Your task to perform on an android device: Do I have any events this weekend? Image 0: 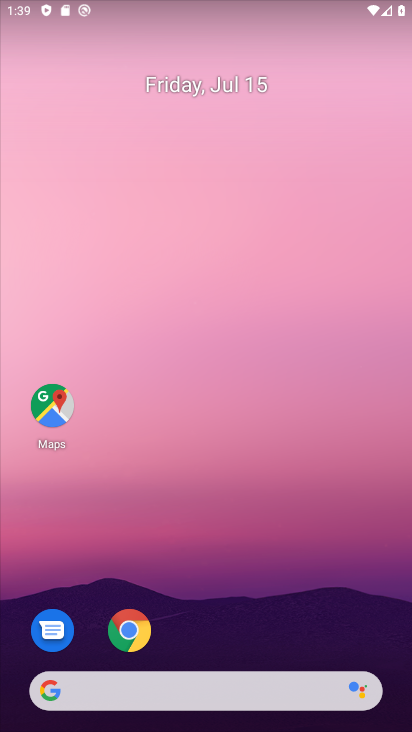
Step 0: drag from (216, 560) to (217, 205)
Your task to perform on an android device: Do I have any events this weekend? Image 1: 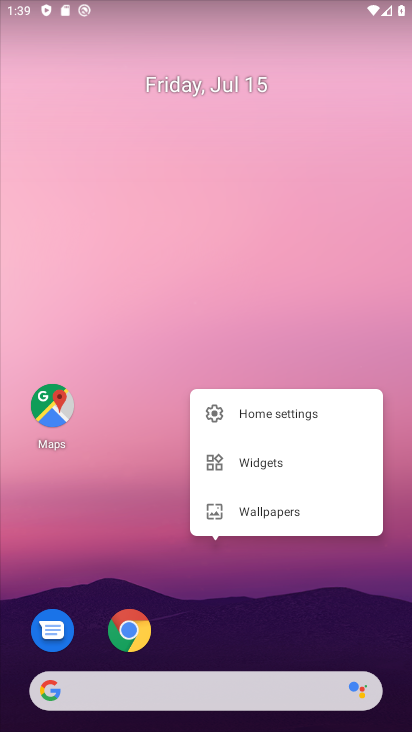
Step 1: click (207, 297)
Your task to perform on an android device: Do I have any events this weekend? Image 2: 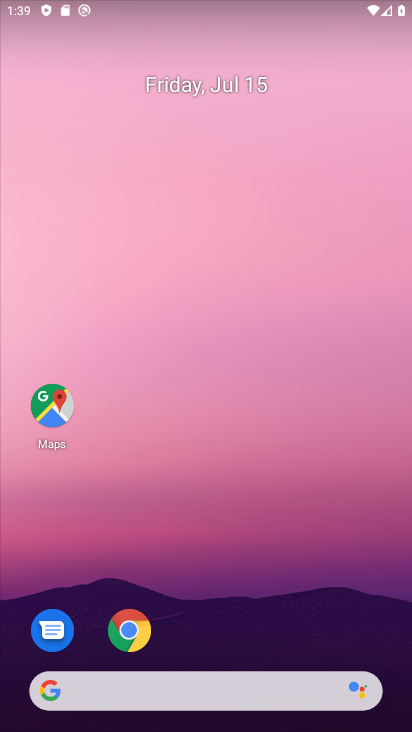
Step 2: drag from (233, 533) to (233, 127)
Your task to perform on an android device: Do I have any events this weekend? Image 3: 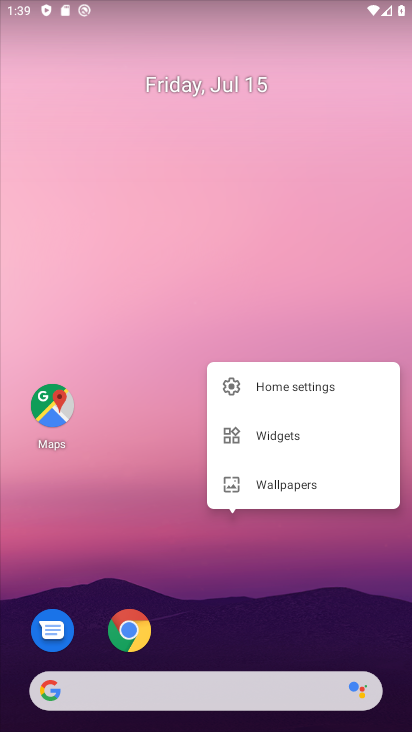
Step 3: click (137, 252)
Your task to perform on an android device: Do I have any events this weekend? Image 4: 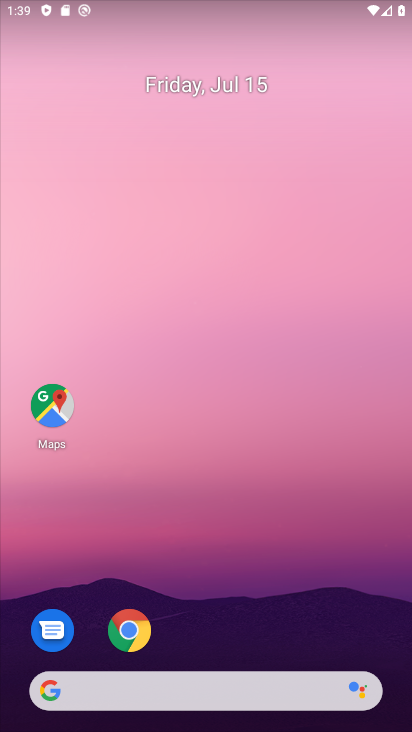
Step 4: drag from (195, 530) to (195, 75)
Your task to perform on an android device: Do I have any events this weekend? Image 5: 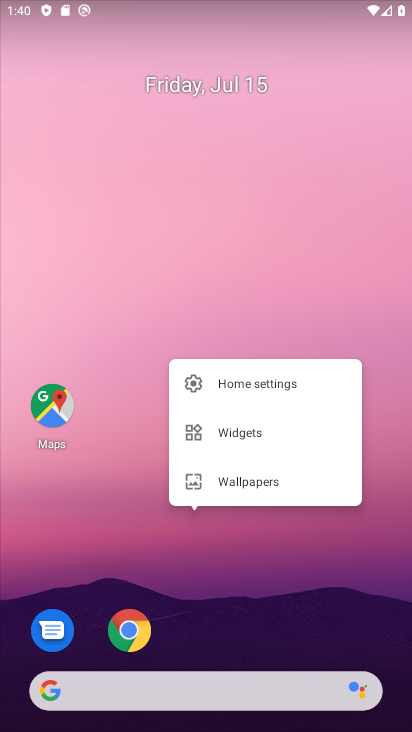
Step 5: click (228, 233)
Your task to perform on an android device: Do I have any events this weekend? Image 6: 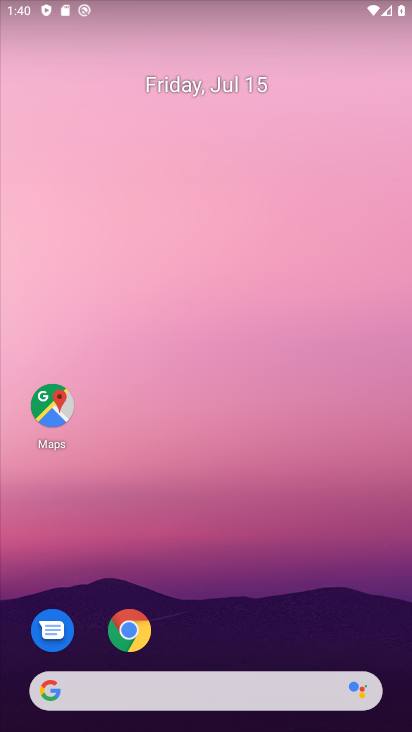
Step 6: drag from (247, 619) to (257, 73)
Your task to perform on an android device: Do I have any events this weekend? Image 7: 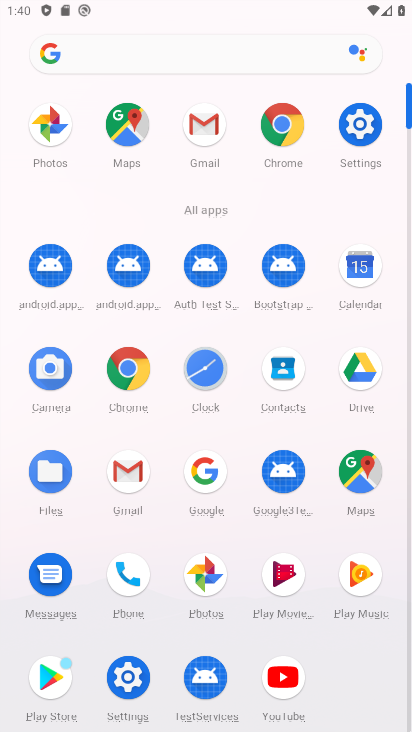
Step 7: click (363, 271)
Your task to perform on an android device: Do I have any events this weekend? Image 8: 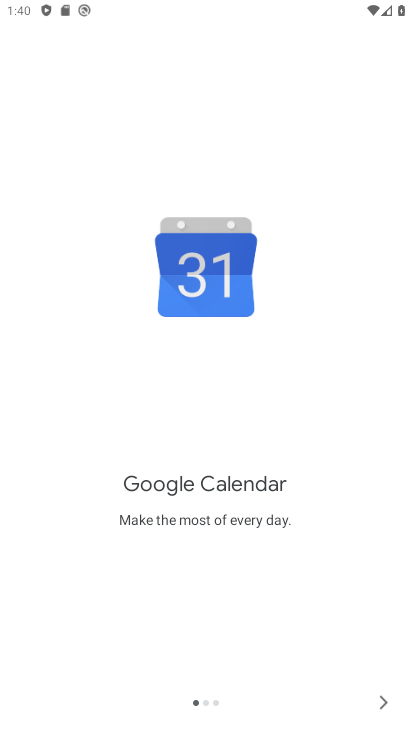
Step 8: click (381, 704)
Your task to perform on an android device: Do I have any events this weekend? Image 9: 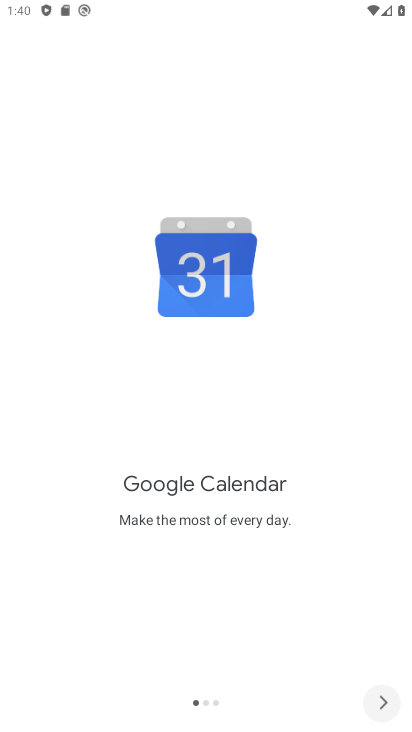
Step 9: click (381, 704)
Your task to perform on an android device: Do I have any events this weekend? Image 10: 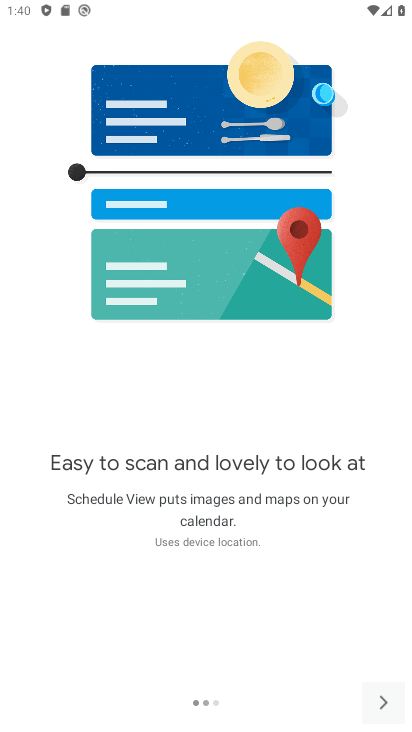
Step 10: click (381, 704)
Your task to perform on an android device: Do I have any events this weekend? Image 11: 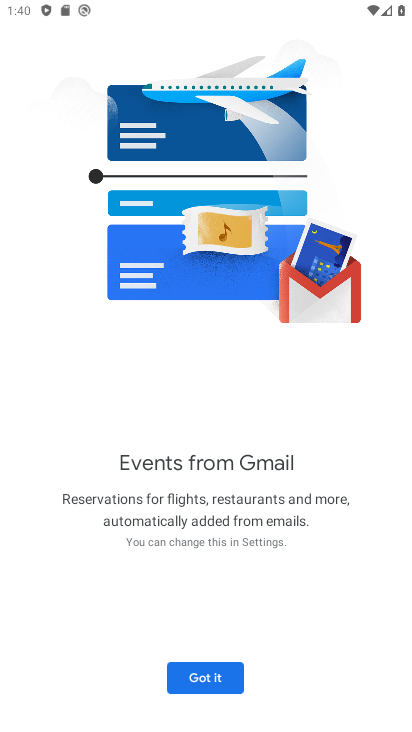
Step 11: click (187, 680)
Your task to perform on an android device: Do I have any events this weekend? Image 12: 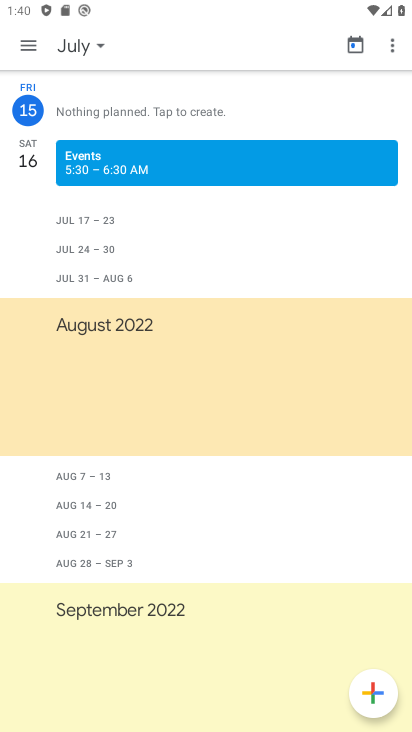
Step 12: click (22, 43)
Your task to perform on an android device: Do I have any events this weekend? Image 13: 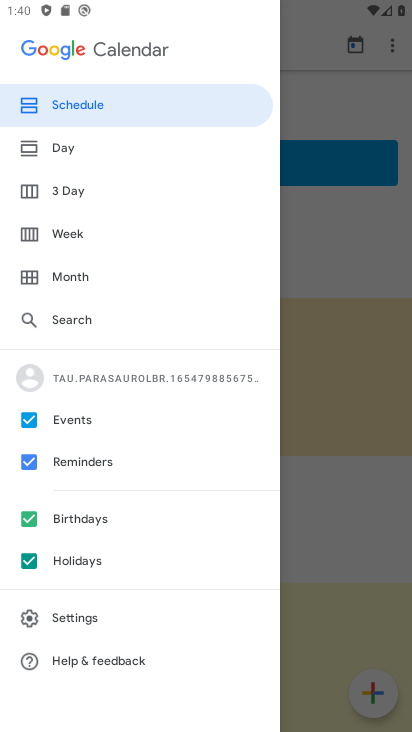
Step 13: click (63, 229)
Your task to perform on an android device: Do I have any events this weekend? Image 14: 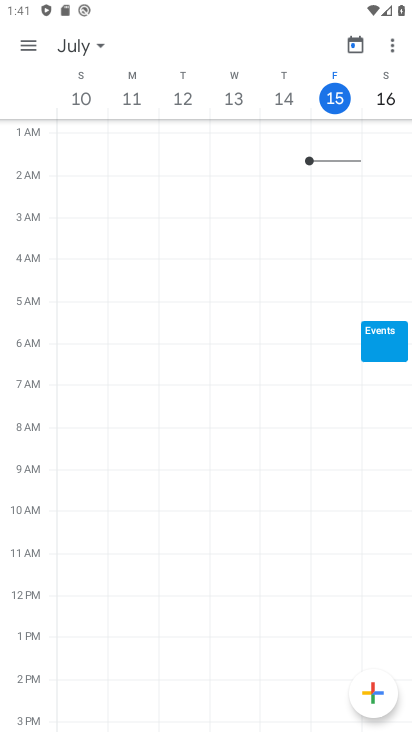
Step 14: task complete